Your task to perform on an android device: turn off notifications settings in the gmail app Image 0: 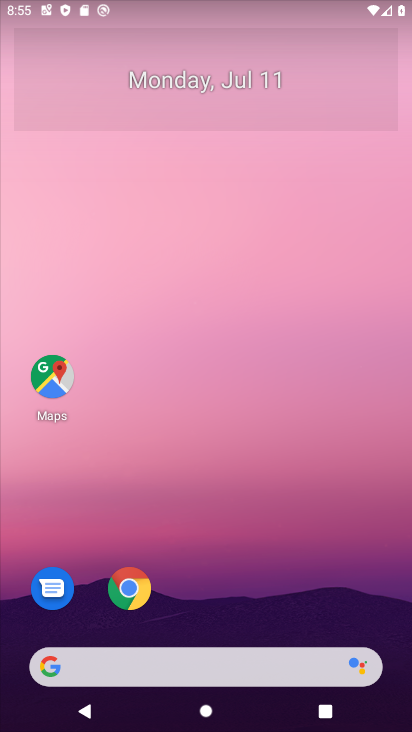
Step 0: drag from (225, 575) to (258, 78)
Your task to perform on an android device: turn off notifications settings in the gmail app Image 1: 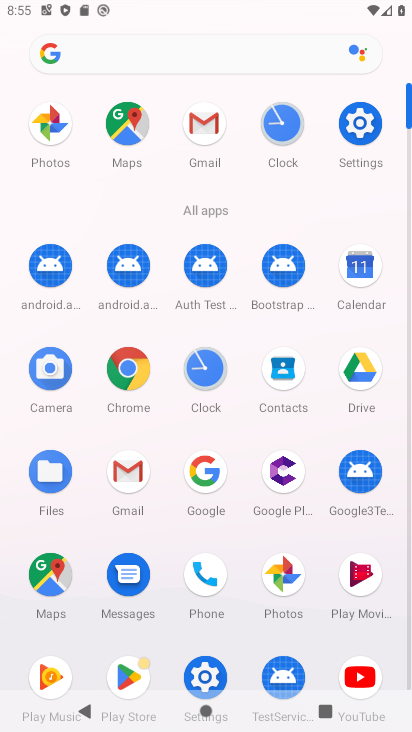
Step 1: click (205, 132)
Your task to perform on an android device: turn off notifications settings in the gmail app Image 2: 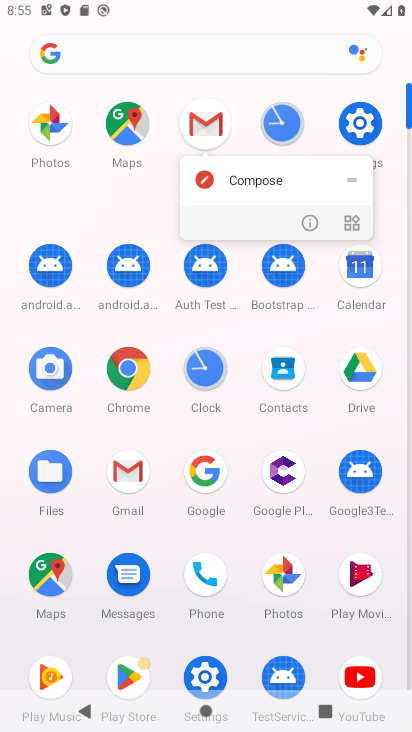
Step 2: click (316, 219)
Your task to perform on an android device: turn off notifications settings in the gmail app Image 3: 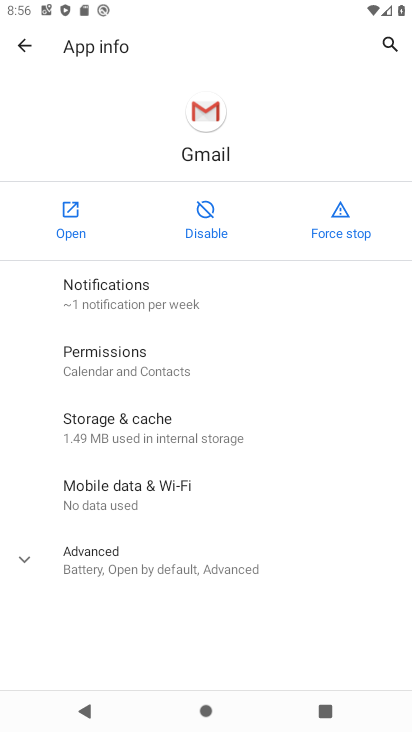
Step 3: click (143, 304)
Your task to perform on an android device: turn off notifications settings in the gmail app Image 4: 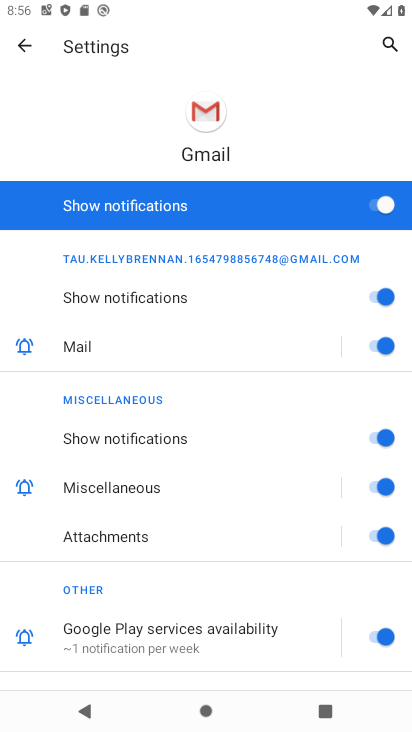
Step 4: click (378, 200)
Your task to perform on an android device: turn off notifications settings in the gmail app Image 5: 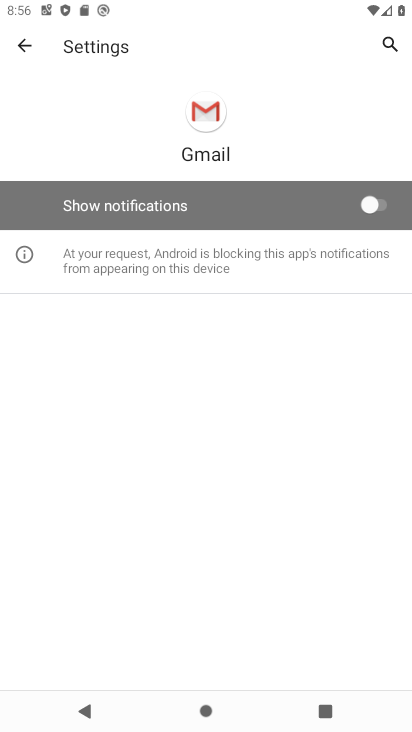
Step 5: task complete